Your task to perform on an android device: visit the assistant section in the google photos Image 0: 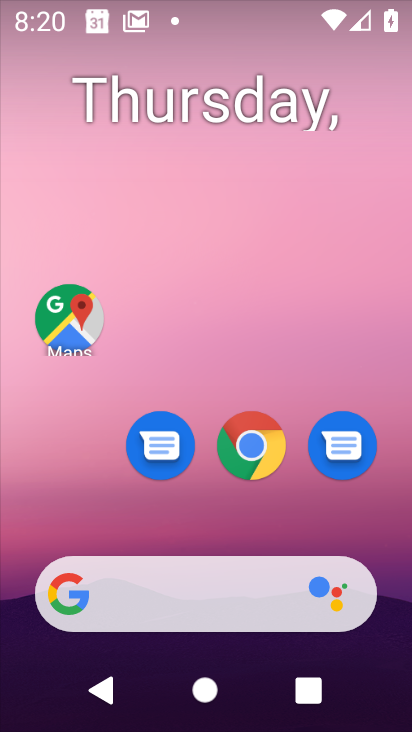
Step 0: drag from (214, 537) to (252, 19)
Your task to perform on an android device: visit the assistant section in the google photos Image 1: 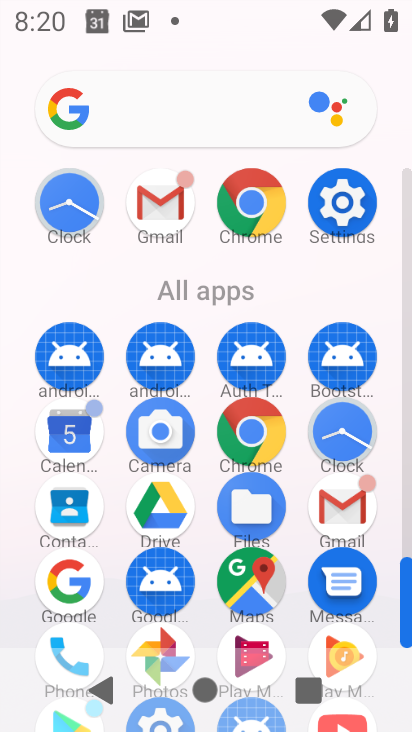
Step 1: click (142, 642)
Your task to perform on an android device: visit the assistant section in the google photos Image 2: 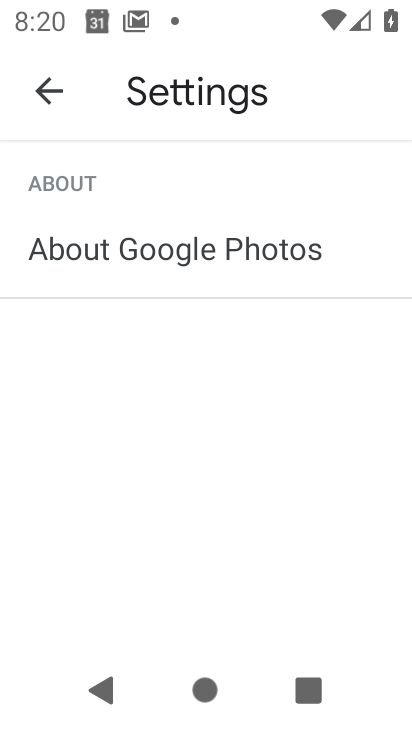
Step 2: click (53, 88)
Your task to perform on an android device: visit the assistant section in the google photos Image 3: 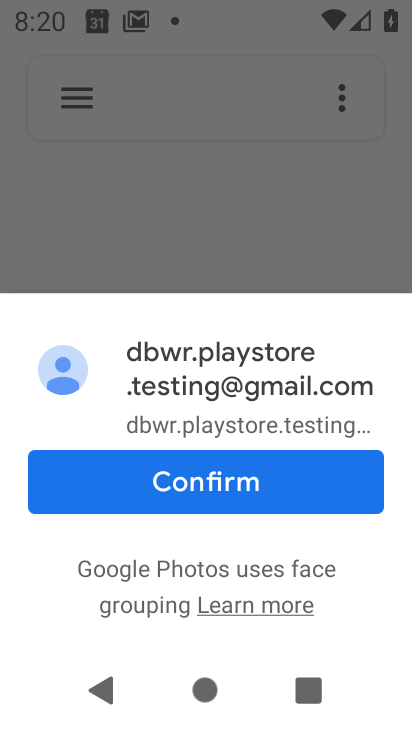
Step 3: click (257, 588)
Your task to perform on an android device: visit the assistant section in the google photos Image 4: 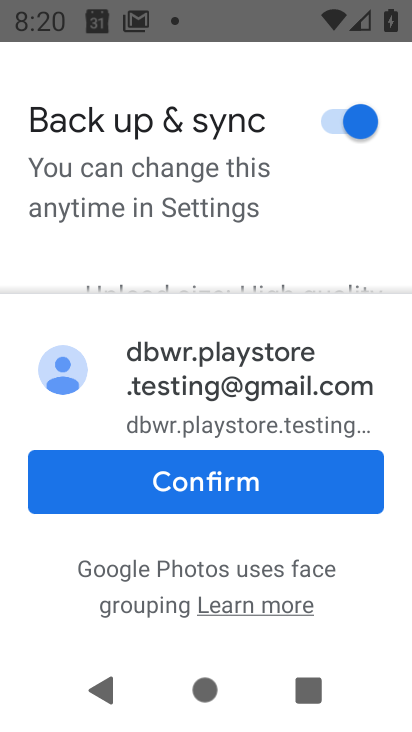
Step 4: click (248, 482)
Your task to perform on an android device: visit the assistant section in the google photos Image 5: 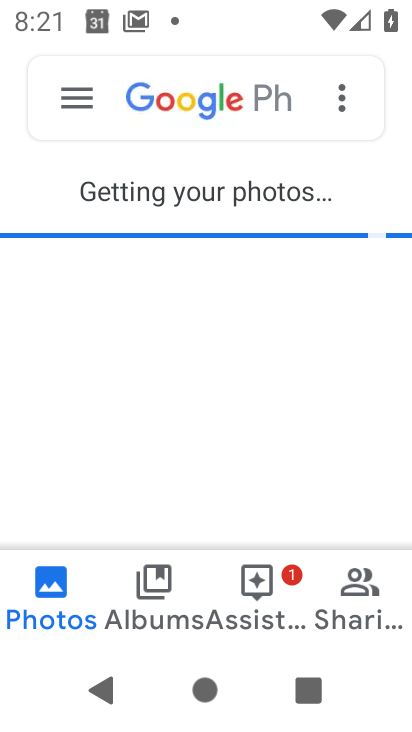
Step 5: click (244, 591)
Your task to perform on an android device: visit the assistant section in the google photos Image 6: 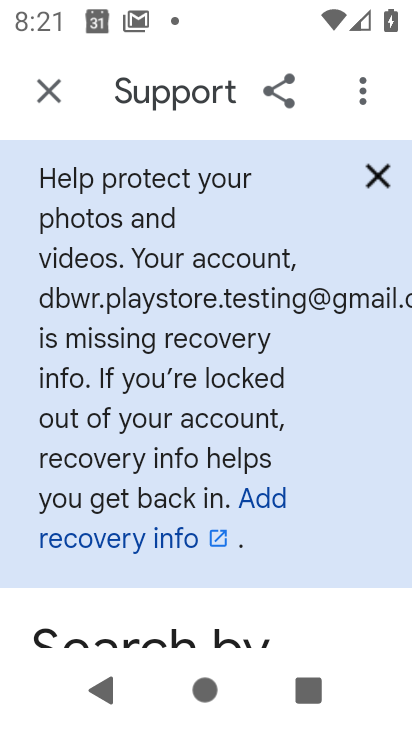
Step 6: drag from (244, 591) to (201, 211)
Your task to perform on an android device: visit the assistant section in the google photos Image 7: 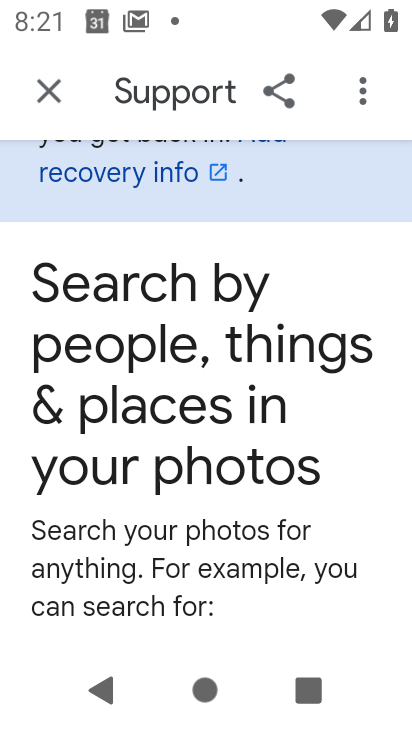
Step 7: click (30, 87)
Your task to perform on an android device: visit the assistant section in the google photos Image 8: 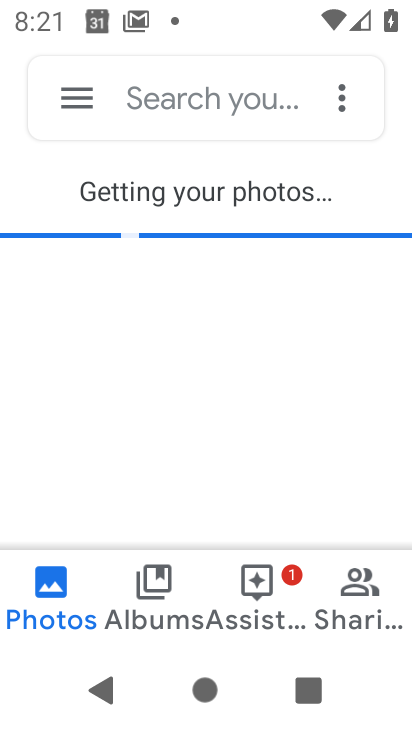
Step 8: click (280, 589)
Your task to perform on an android device: visit the assistant section in the google photos Image 9: 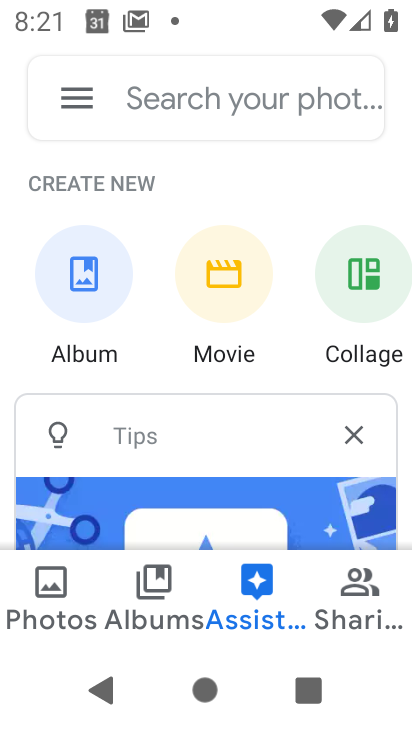
Step 9: task complete